Your task to perform on an android device: Check the news Image 0: 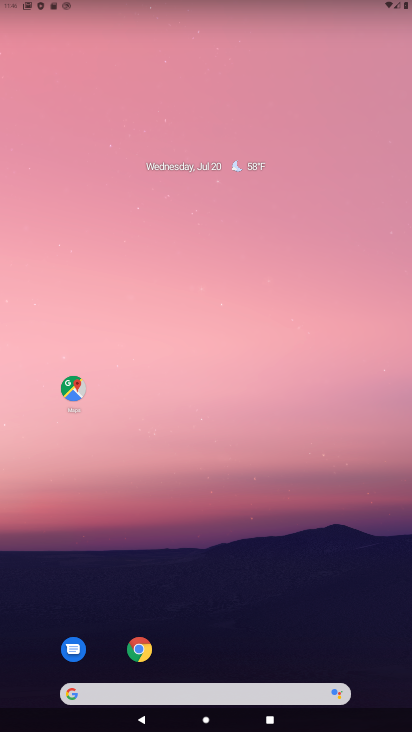
Step 0: drag from (180, 650) to (218, 155)
Your task to perform on an android device: Check the news Image 1: 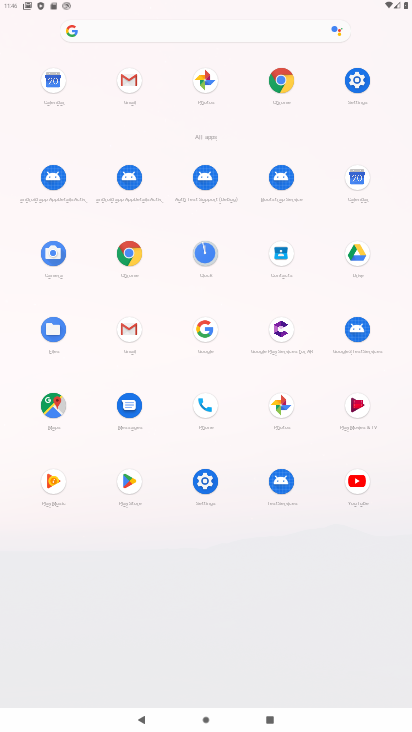
Step 1: click (201, 332)
Your task to perform on an android device: Check the news Image 2: 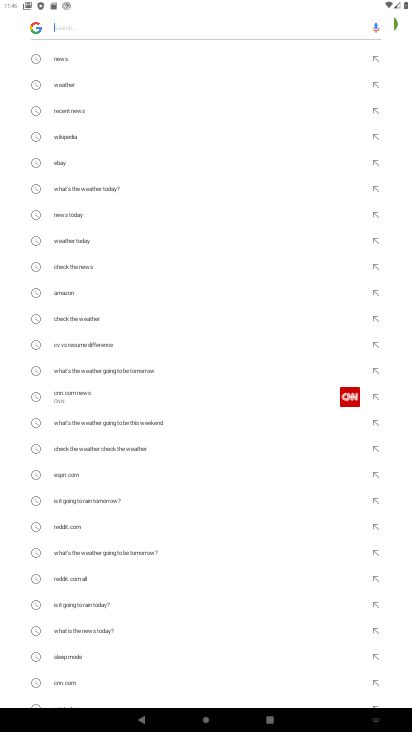
Step 2: type "check the news"
Your task to perform on an android device: Check the news Image 3: 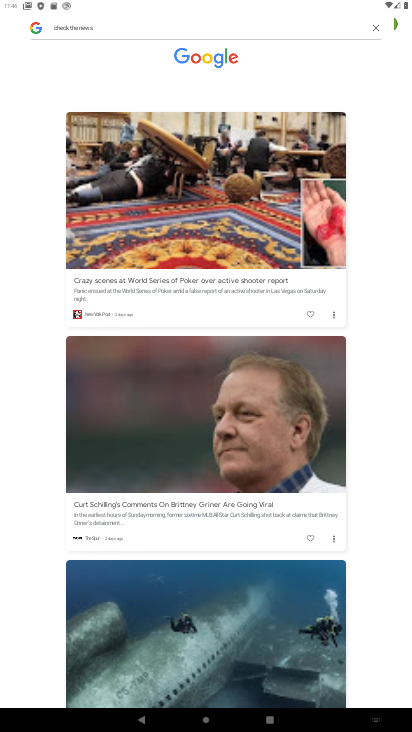
Step 3: task complete